Your task to perform on an android device: turn on improve location accuracy Image 0: 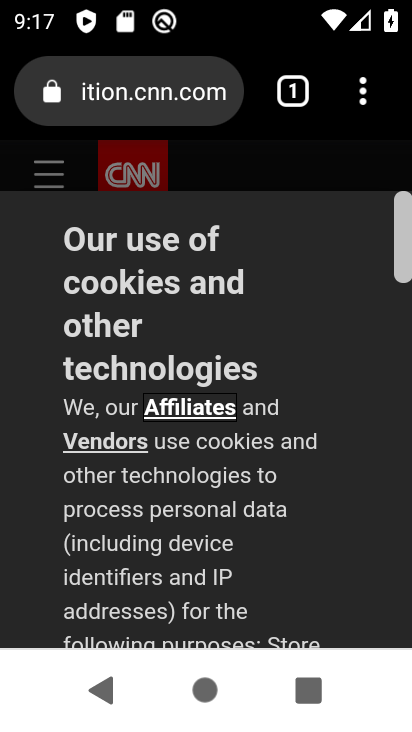
Step 0: press home button
Your task to perform on an android device: turn on improve location accuracy Image 1: 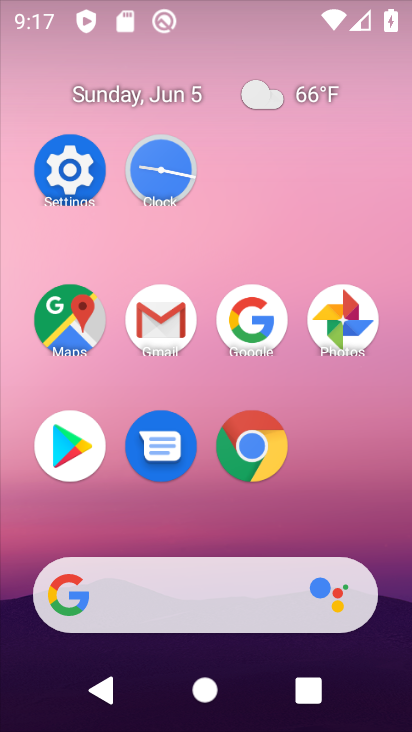
Step 1: click (63, 191)
Your task to perform on an android device: turn on improve location accuracy Image 2: 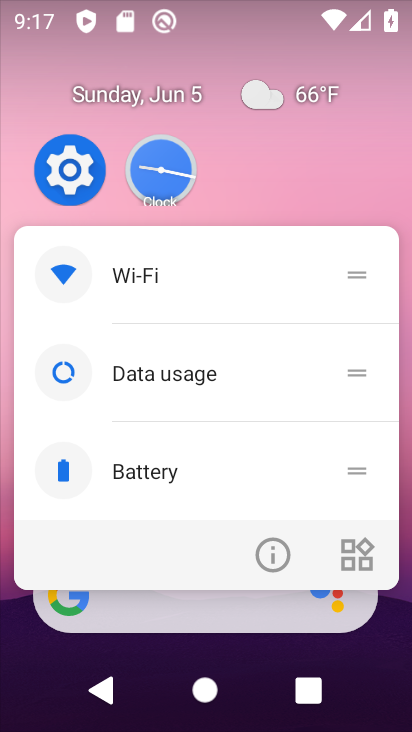
Step 2: click (63, 191)
Your task to perform on an android device: turn on improve location accuracy Image 3: 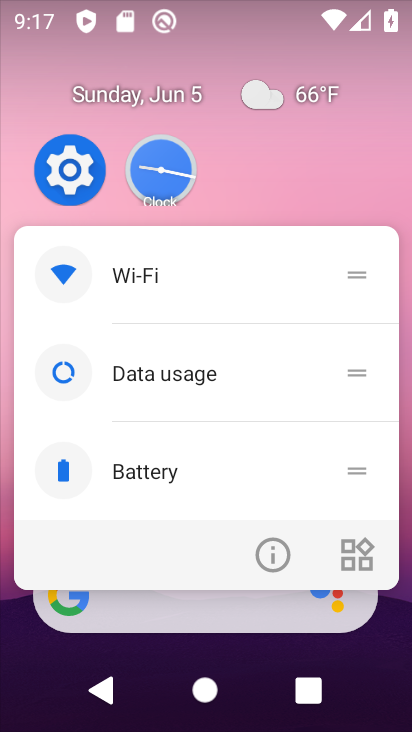
Step 3: click (63, 191)
Your task to perform on an android device: turn on improve location accuracy Image 4: 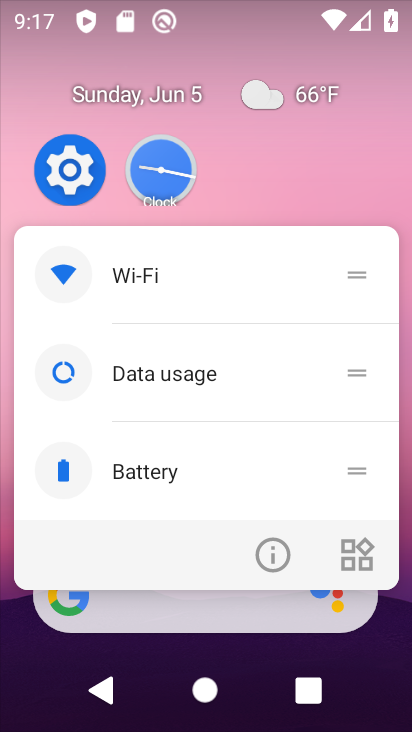
Step 4: click (63, 191)
Your task to perform on an android device: turn on improve location accuracy Image 5: 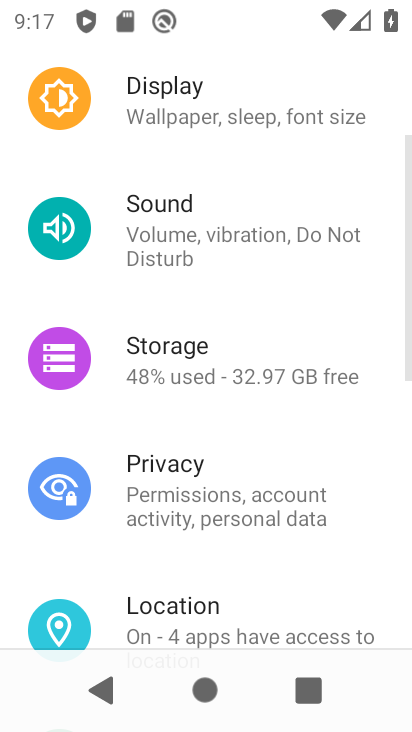
Step 5: click (305, 212)
Your task to perform on an android device: turn on improve location accuracy Image 6: 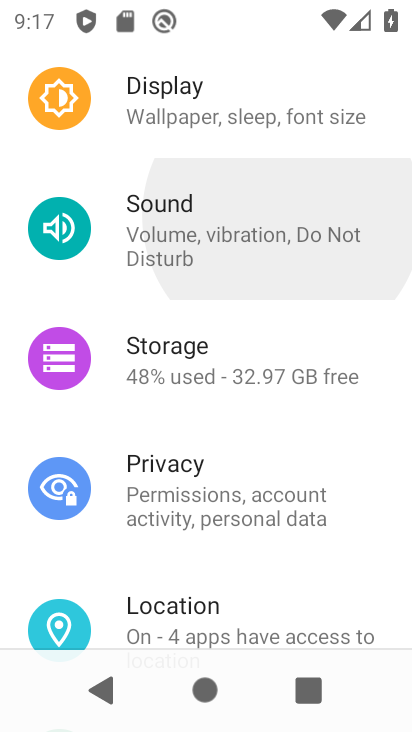
Step 6: drag from (233, 548) to (226, 260)
Your task to perform on an android device: turn on improve location accuracy Image 7: 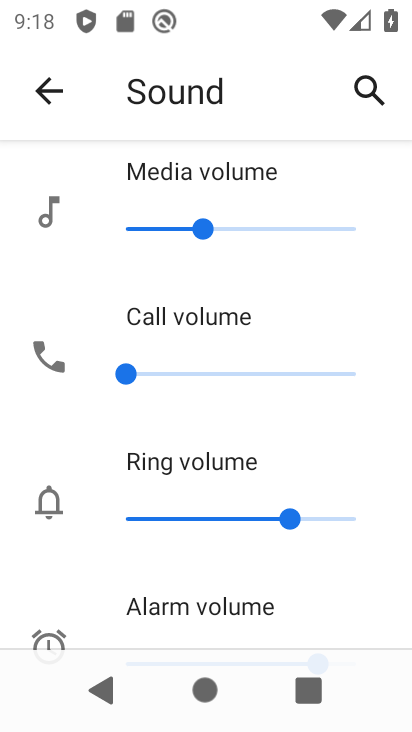
Step 7: click (28, 91)
Your task to perform on an android device: turn on improve location accuracy Image 8: 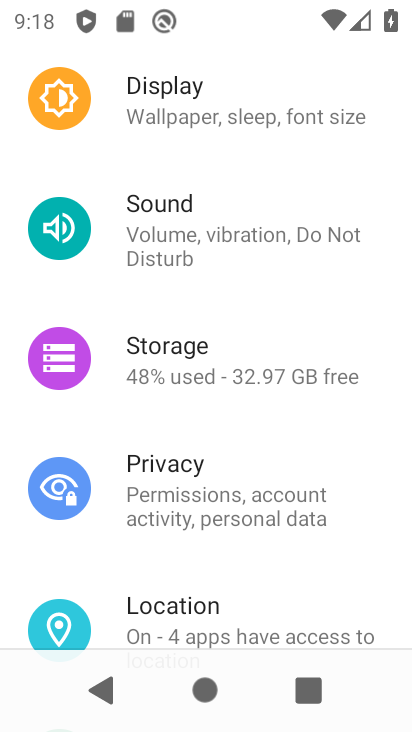
Step 8: click (257, 613)
Your task to perform on an android device: turn on improve location accuracy Image 9: 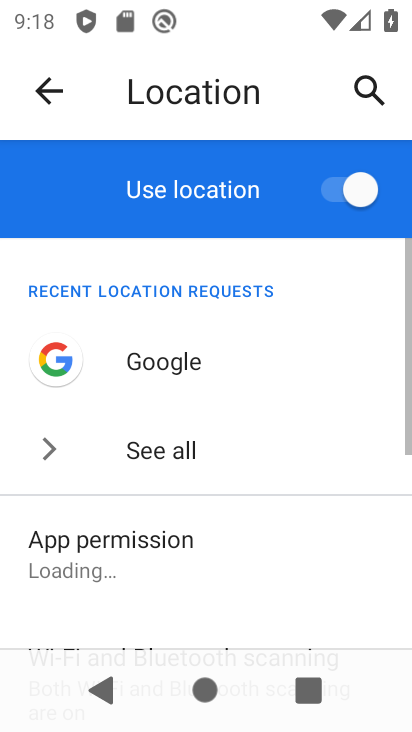
Step 9: drag from (259, 539) to (255, 281)
Your task to perform on an android device: turn on improve location accuracy Image 10: 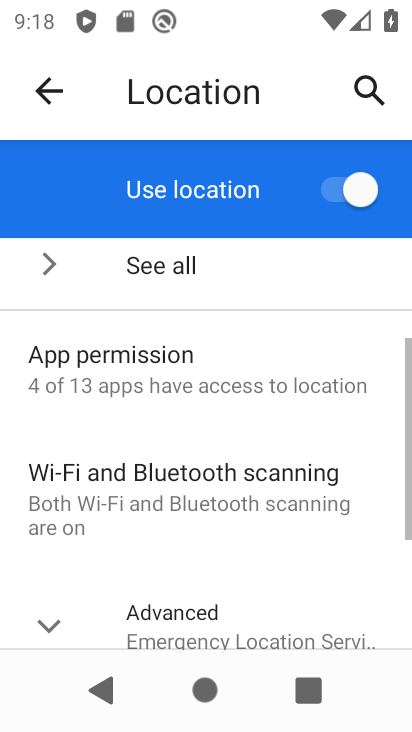
Step 10: click (230, 630)
Your task to perform on an android device: turn on improve location accuracy Image 11: 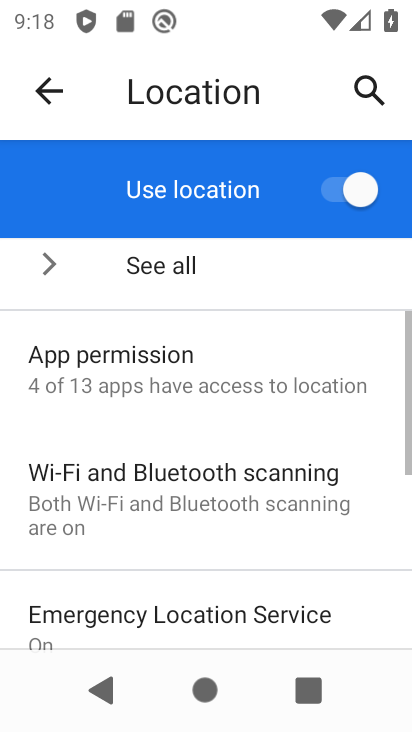
Step 11: drag from (230, 629) to (210, 246)
Your task to perform on an android device: turn on improve location accuracy Image 12: 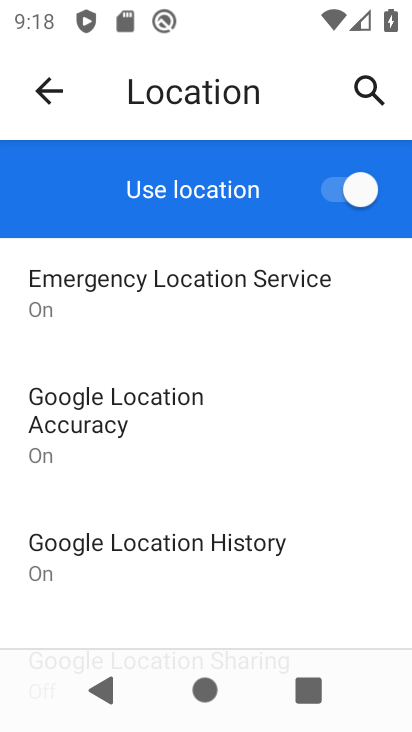
Step 12: click (172, 449)
Your task to perform on an android device: turn on improve location accuracy Image 13: 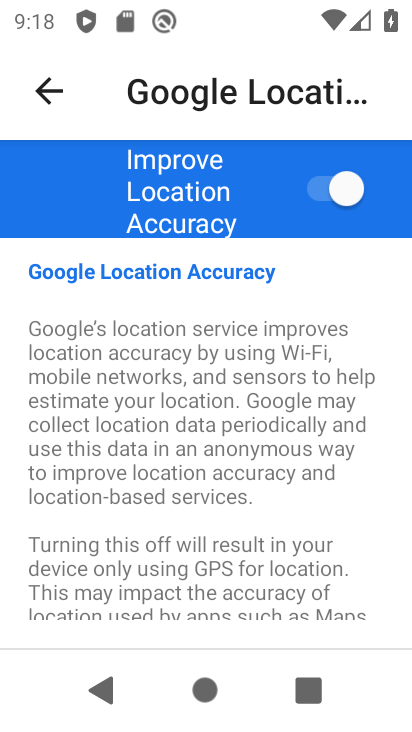
Step 13: task complete